Your task to perform on an android device: Search for usb-c on walmart, select the first entry, and add it to the cart. Image 0: 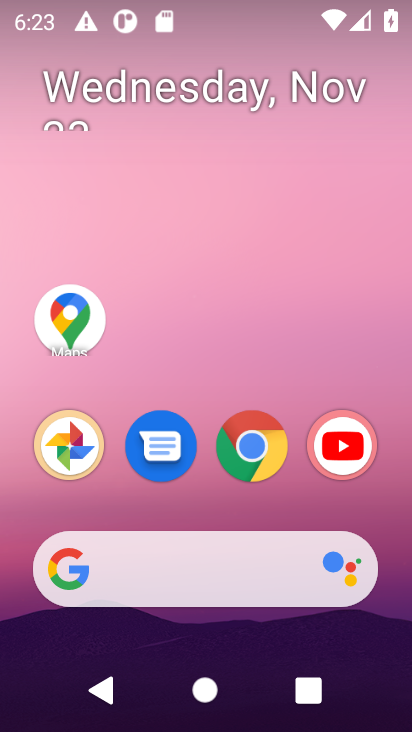
Step 0: click (186, 580)
Your task to perform on an android device: Search for usb-c on walmart, select the first entry, and add it to the cart. Image 1: 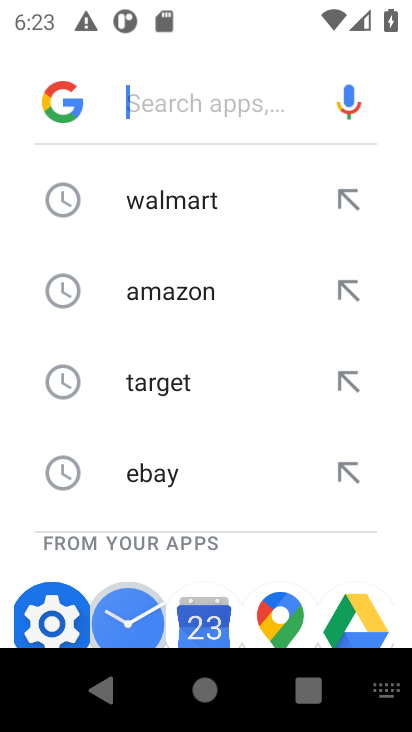
Step 1: type "walmart"
Your task to perform on an android device: Search for usb-c on walmart, select the first entry, and add it to the cart. Image 2: 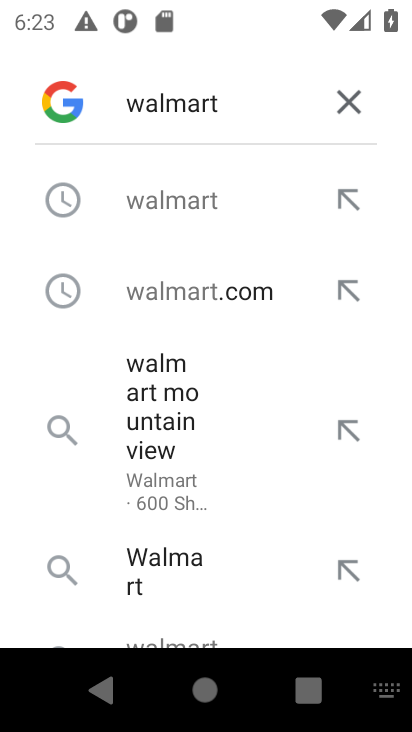
Step 2: click (204, 277)
Your task to perform on an android device: Search for usb-c on walmart, select the first entry, and add it to the cart. Image 3: 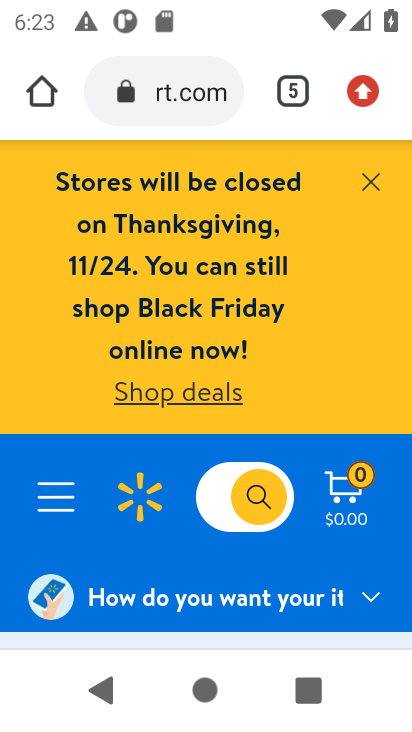
Step 3: click (237, 480)
Your task to perform on an android device: Search for usb-c on walmart, select the first entry, and add it to the cart. Image 4: 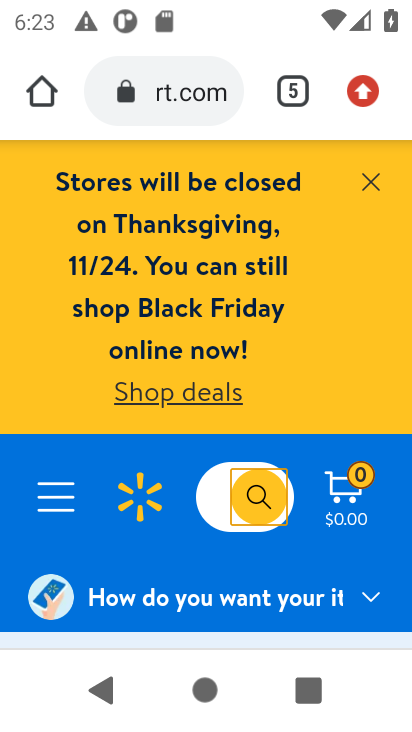
Step 4: click (220, 496)
Your task to perform on an android device: Search for usb-c on walmart, select the first entry, and add it to the cart. Image 5: 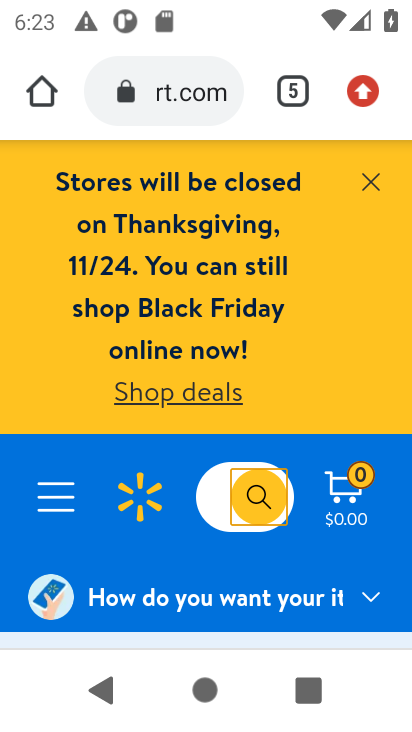
Step 5: click (220, 496)
Your task to perform on an android device: Search for usb-c on walmart, select the first entry, and add it to the cart. Image 6: 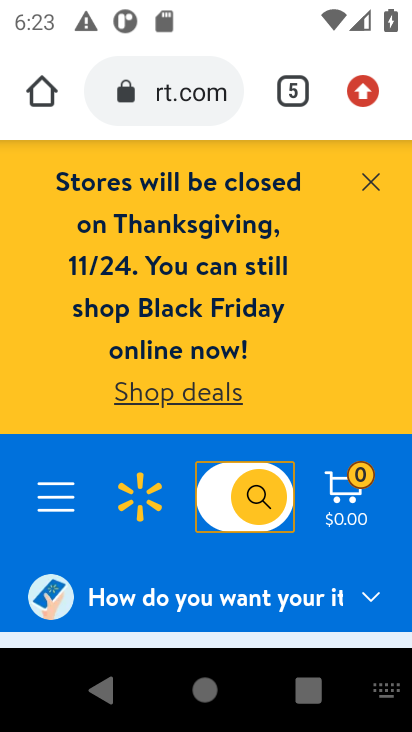
Step 6: click (220, 496)
Your task to perform on an android device: Search for usb-c on walmart, select the first entry, and add it to the cart. Image 7: 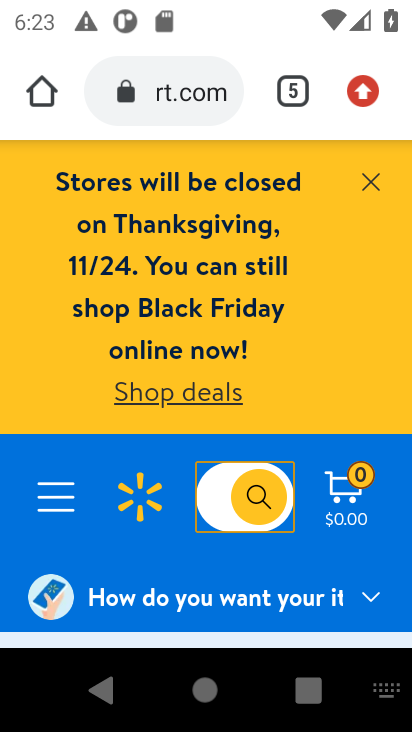
Step 7: drag from (233, 570) to (241, 314)
Your task to perform on an android device: Search for usb-c on walmart, select the first entry, and add it to the cart. Image 8: 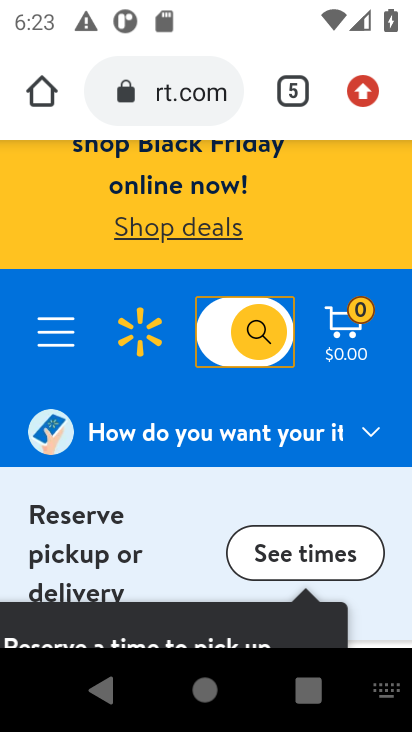
Step 8: click (235, 320)
Your task to perform on an android device: Search for usb-c on walmart, select the first entry, and add it to the cart. Image 9: 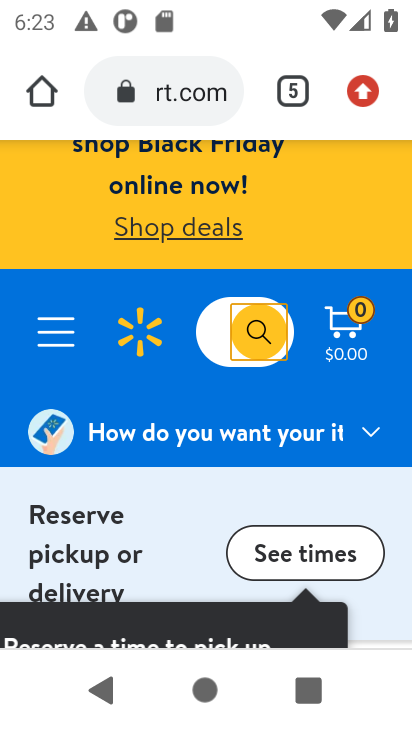
Step 9: type "usb-c"
Your task to perform on an android device: Search for usb-c on walmart, select the first entry, and add it to the cart. Image 10: 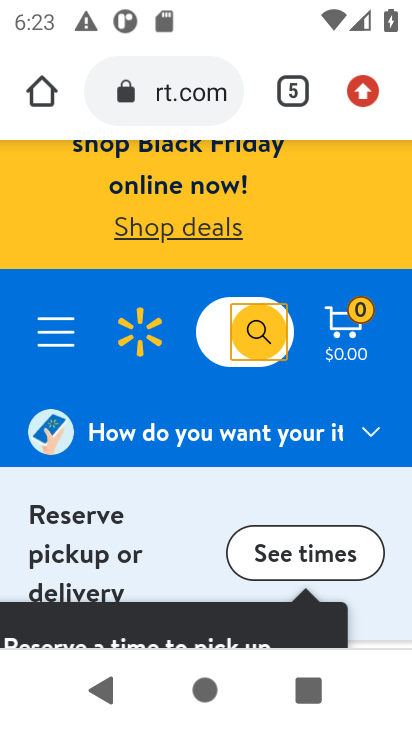
Step 10: click (214, 333)
Your task to perform on an android device: Search for usb-c on walmart, select the first entry, and add it to the cart. Image 11: 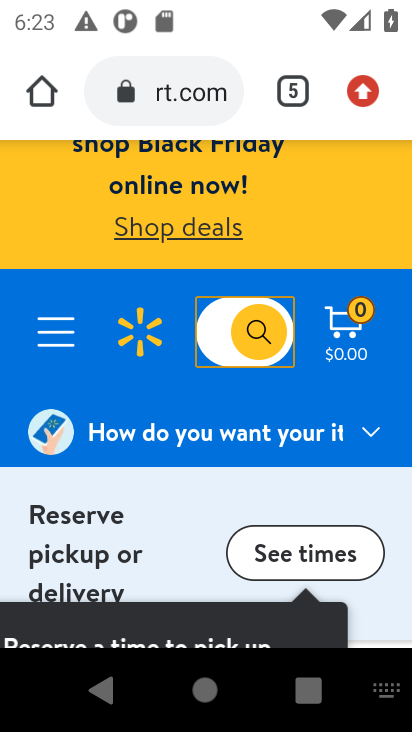
Step 11: drag from (280, 502) to (266, 259)
Your task to perform on an android device: Search for usb-c on walmart, select the first entry, and add it to the cart. Image 12: 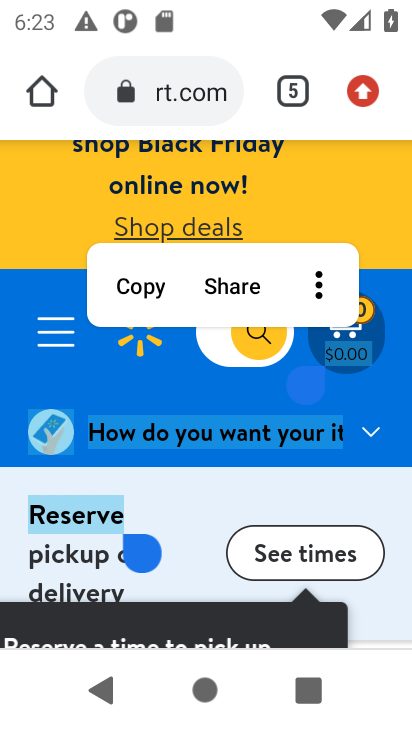
Step 12: click (248, 480)
Your task to perform on an android device: Search for usb-c on walmart, select the first entry, and add it to the cart. Image 13: 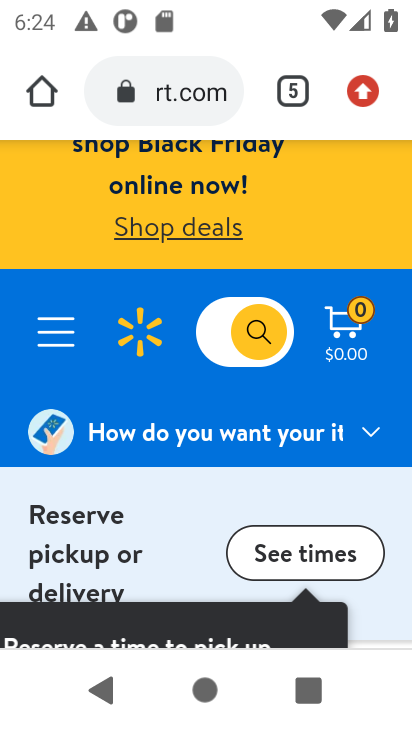
Step 13: drag from (187, 251) to (181, 578)
Your task to perform on an android device: Search for usb-c on walmart, select the first entry, and add it to the cart. Image 14: 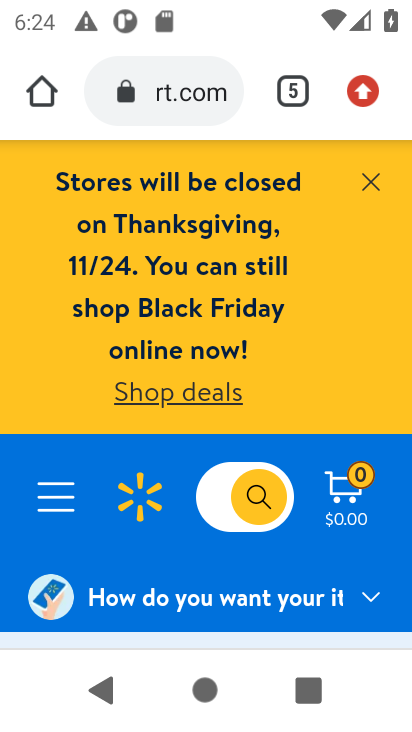
Step 14: click (367, 188)
Your task to perform on an android device: Search for usb-c on walmart, select the first entry, and add it to the cart. Image 15: 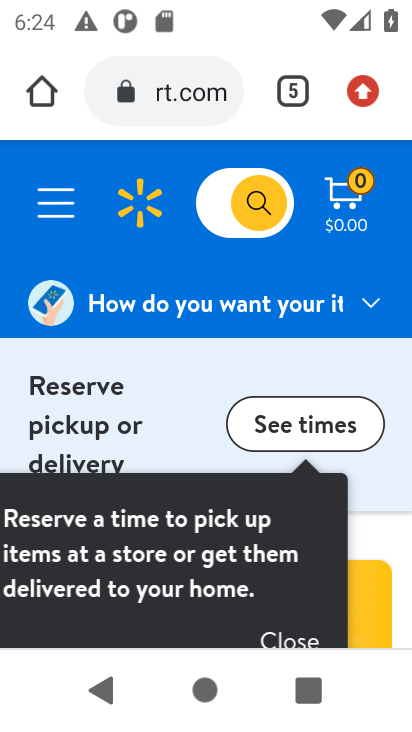
Step 15: drag from (163, 389) to (185, 172)
Your task to perform on an android device: Search for usb-c on walmart, select the first entry, and add it to the cart. Image 16: 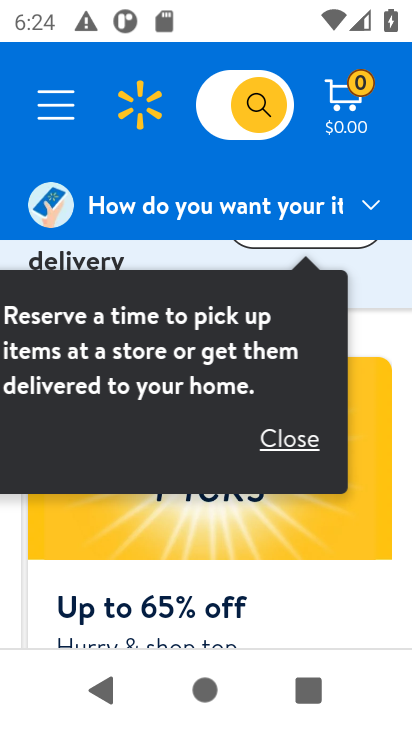
Step 16: click (295, 430)
Your task to perform on an android device: Search for usb-c on walmart, select the first entry, and add it to the cart. Image 17: 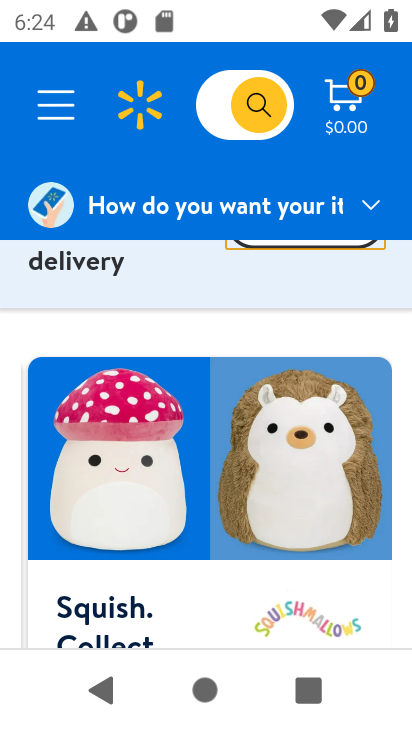
Step 17: task complete